Your task to perform on an android device: Is it going to rain tomorrow? Image 0: 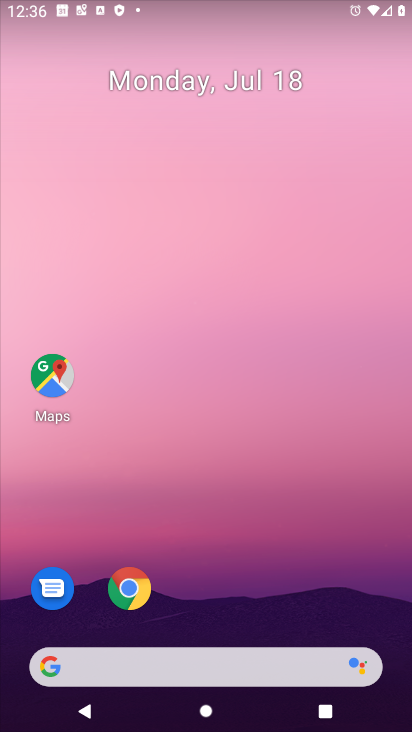
Step 0: drag from (245, 589) to (271, 394)
Your task to perform on an android device: Is it going to rain tomorrow? Image 1: 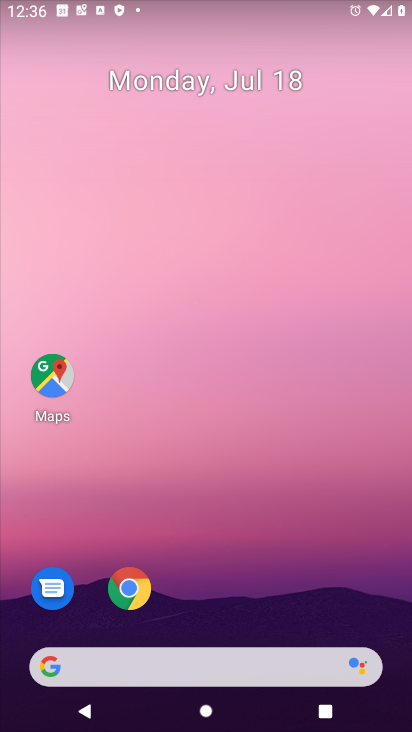
Step 1: drag from (207, 666) to (266, 233)
Your task to perform on an android device: Is it going to rain tomorrow? Image 2: 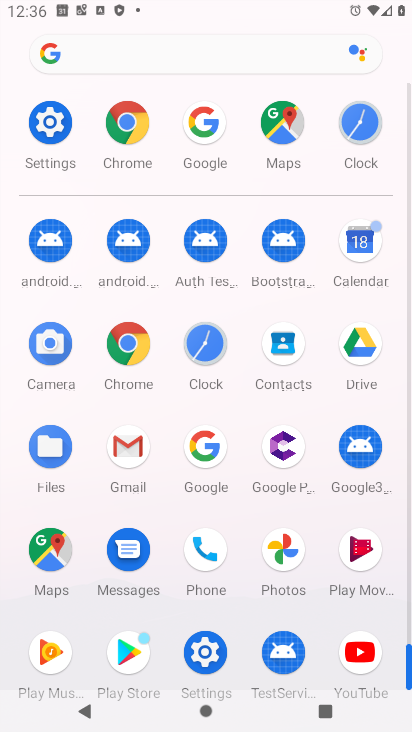
Step 2: click (204, 466)
Your task to perform on an android device: Is it going to rain tomorrow? Image 3: 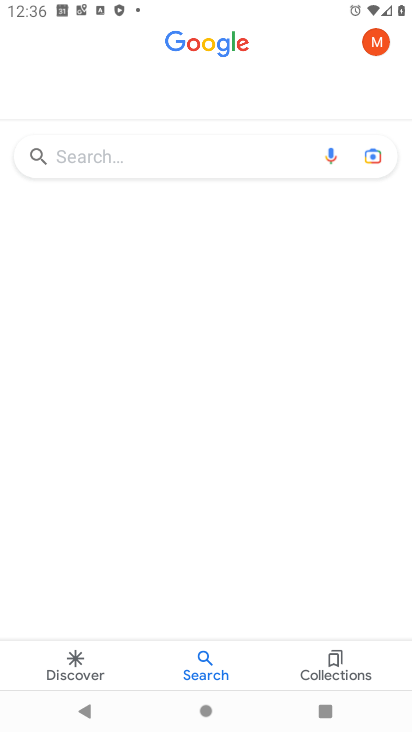
Step 3: click (205, 145)
Your task to perform on an android device: Is it going to rain tomorrow? Image 4: 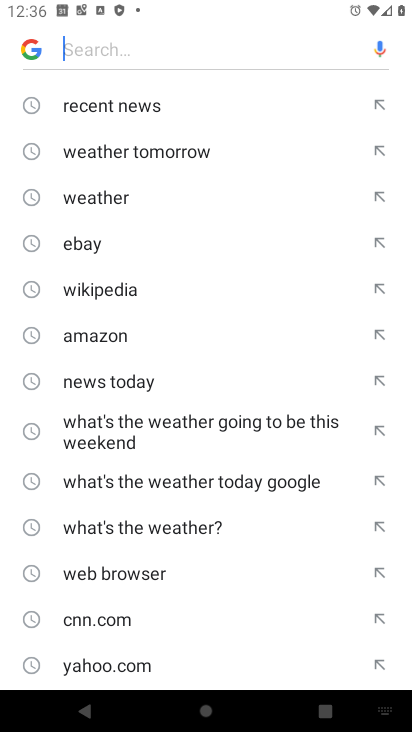
Step 4: click (138, 149)
Your task to perform on an android device: Is it going to rain tomorrow? Image 5: 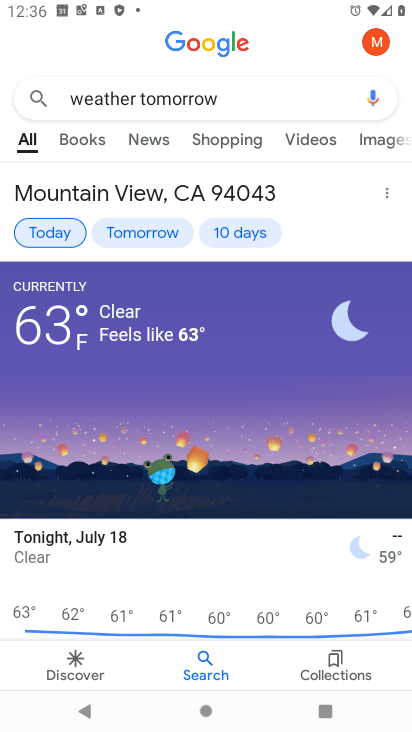
Step 5: task complete